Your task to perform on an android device: Open Google Image 0: 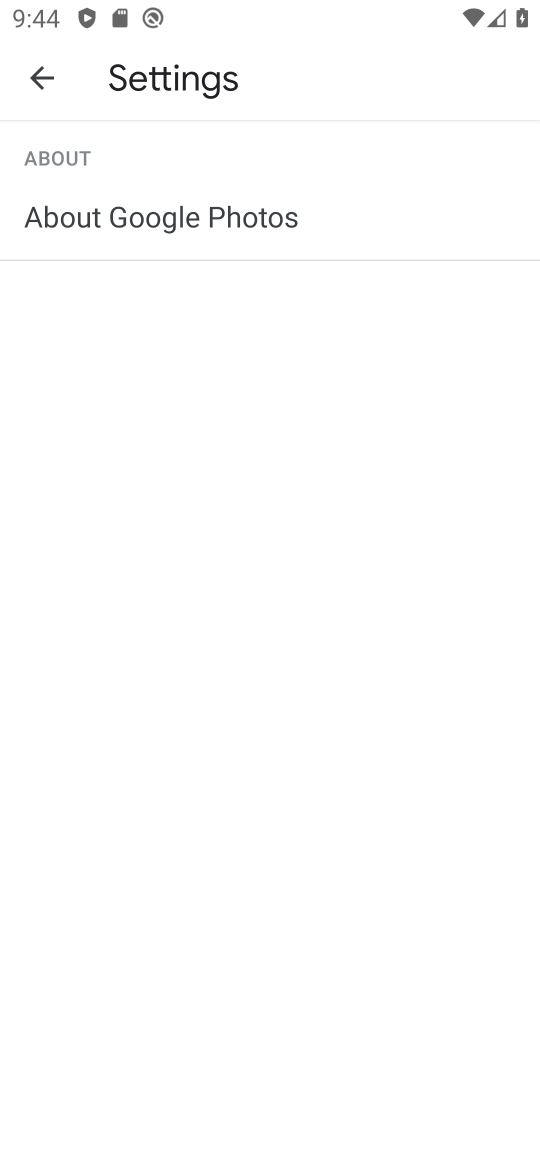
Step 0: press home button
Your task to perform on an android device: Open Google Image 1: 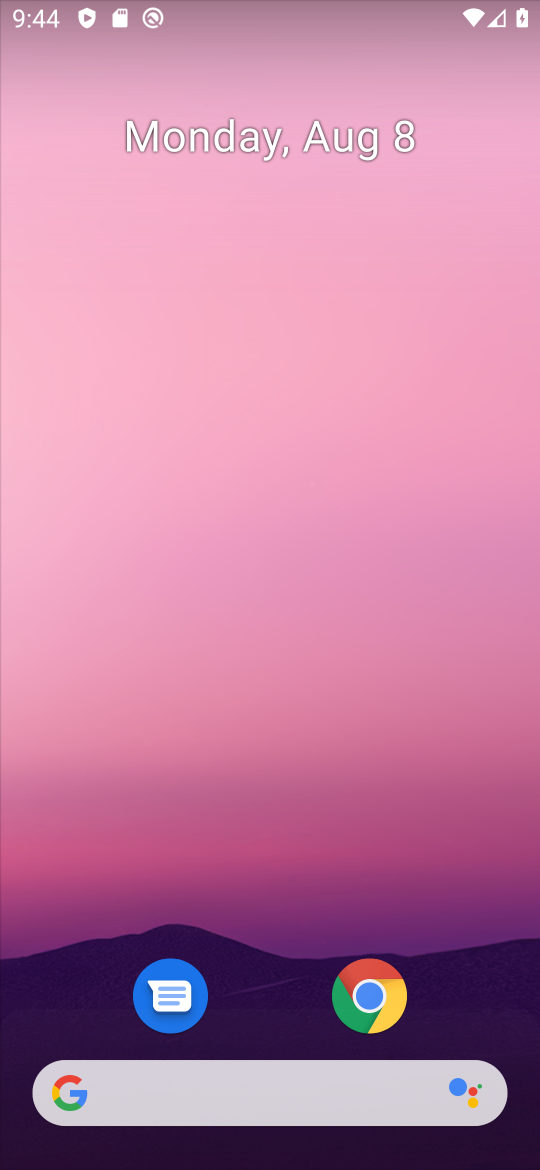
Step 1: drag from (256, 1063) to (146, 488)
Your task to perform on an android device: Open Google Image 2: 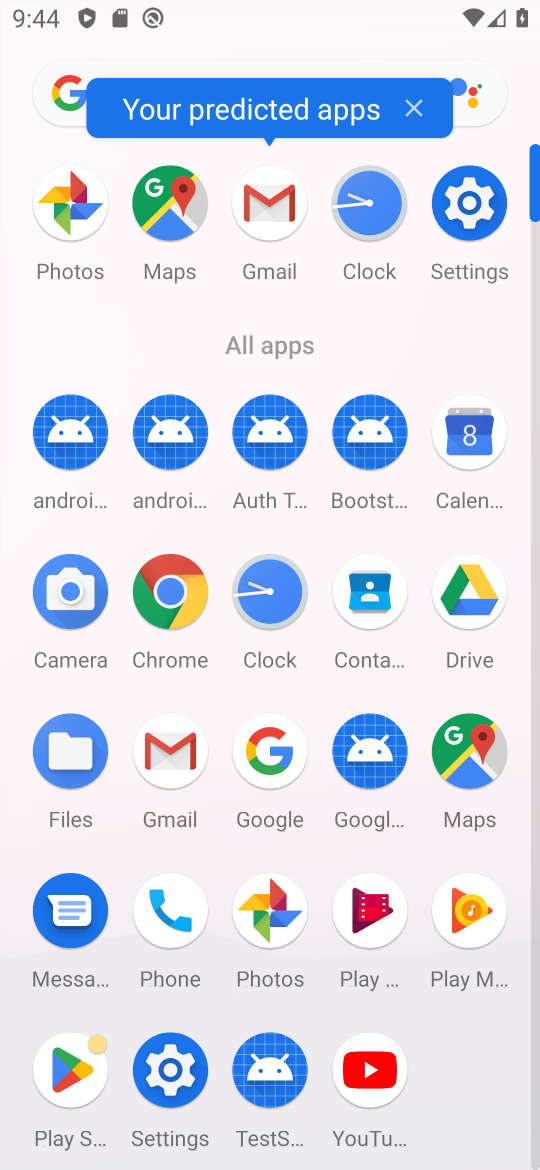
Step 2: click (279, 751)
Your task to perform on an android device: Open Google Image 3: 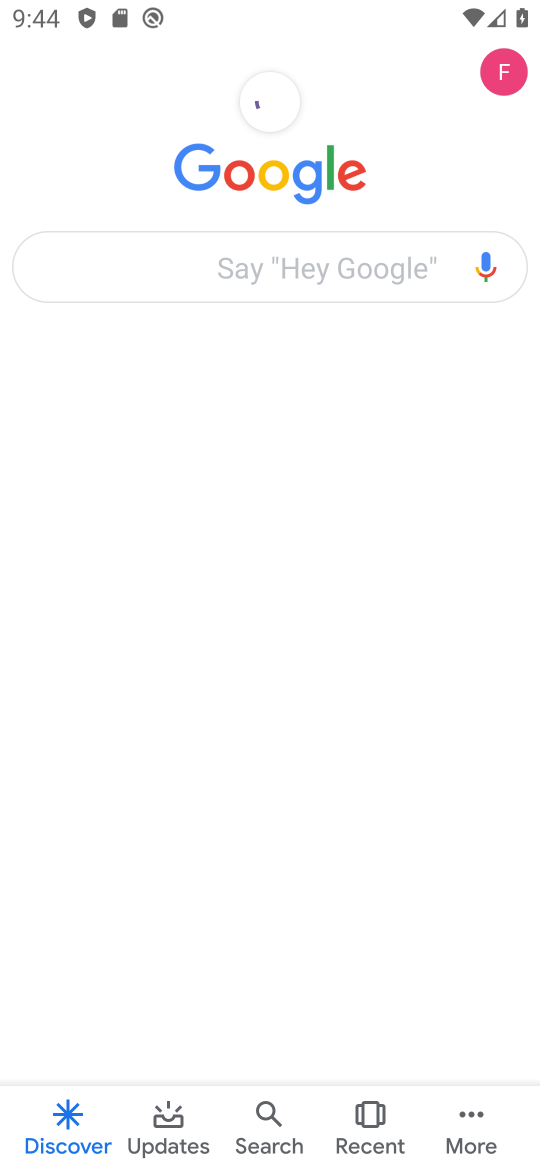
Step 3: task complete